Your task to perform on an android device: Search for "usb-b" on ebay, select the first entry, and add it to the cart. Image 0: 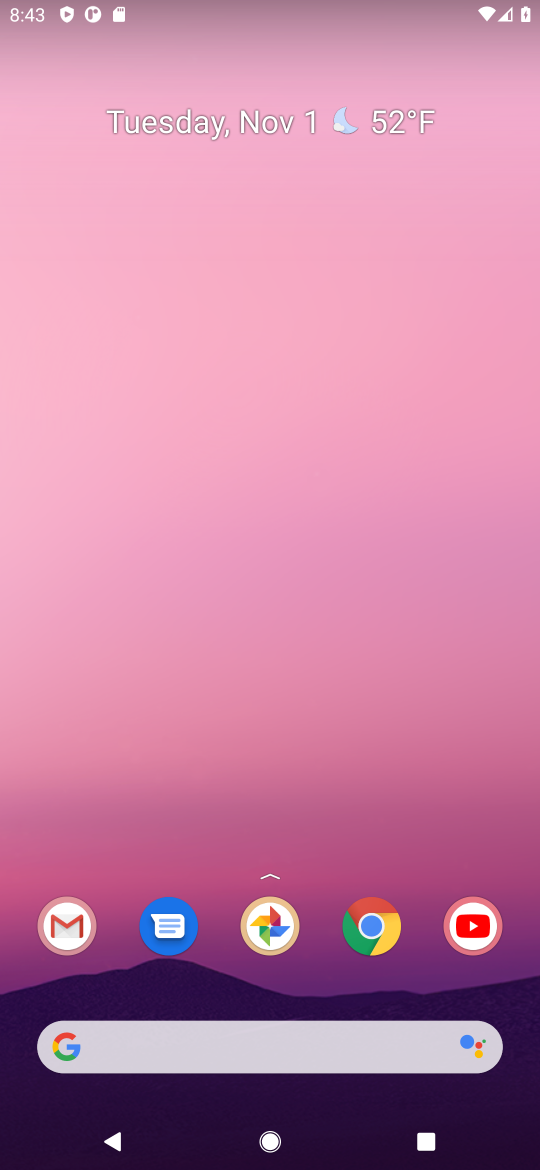
Step 0: click (391, 924)
Your task to perform on an android device: Search for "usb-b" on ebay, select the first entry, and add it to the cart. Image 1: 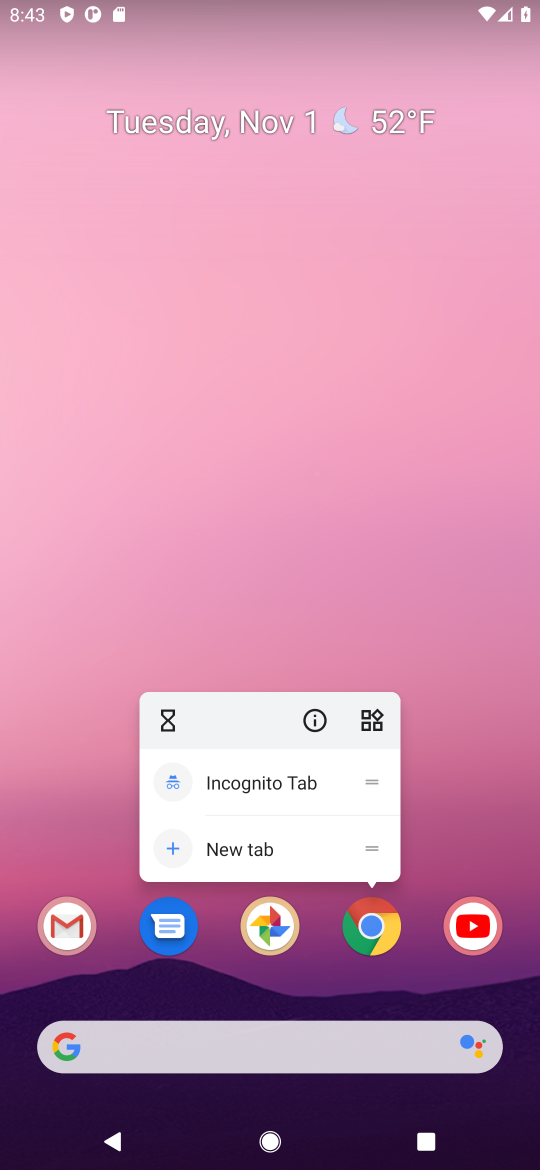
Step 1: click (388, 911)
Your task to perform on an android device: Search for "usb-b" on ebay, select the first entry, and add it to the cart. Image 2: 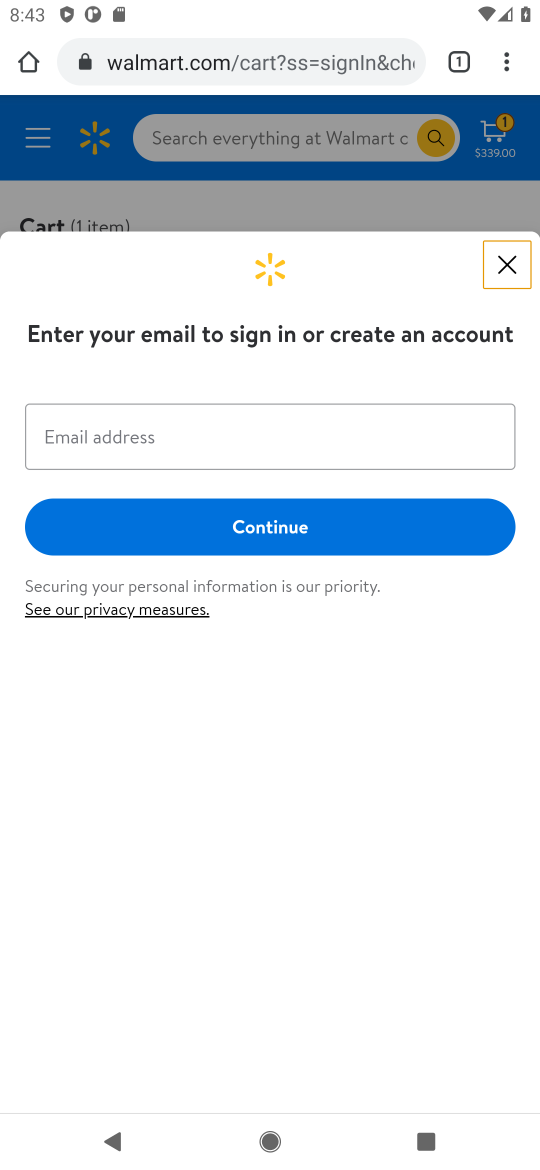
Step 2: click (149, 56)
Your task to perform on an android device: Search for "usb-b" on ebay, select the first entry, and add it to the cart. Image 3: 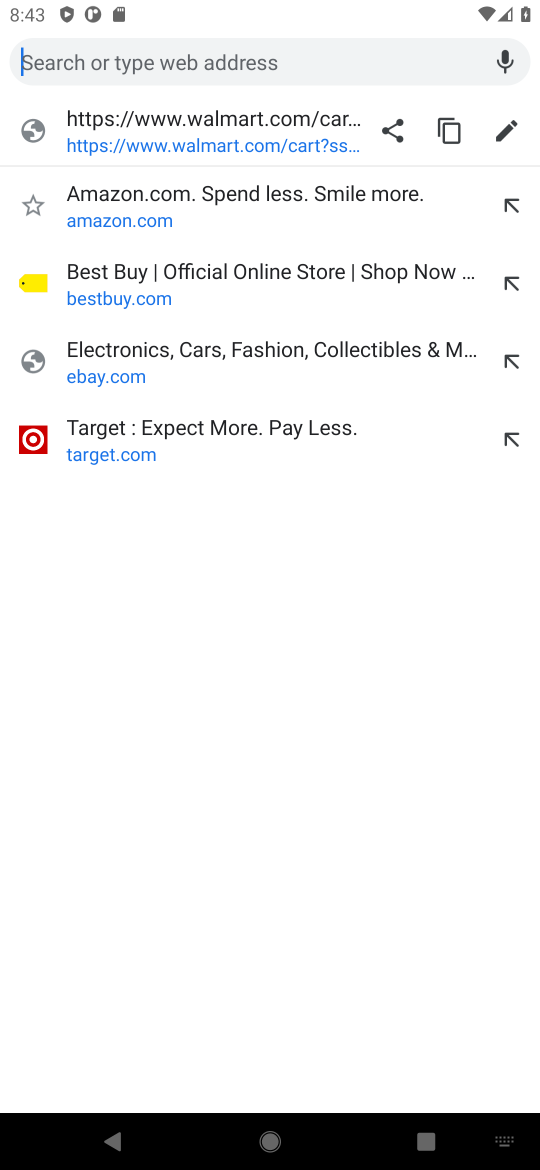
Step 3: type "ebay"
Your task to perform on an android device: Search for "usb-b" on ebay, select the first entry, and add it to the cart. Image 4: 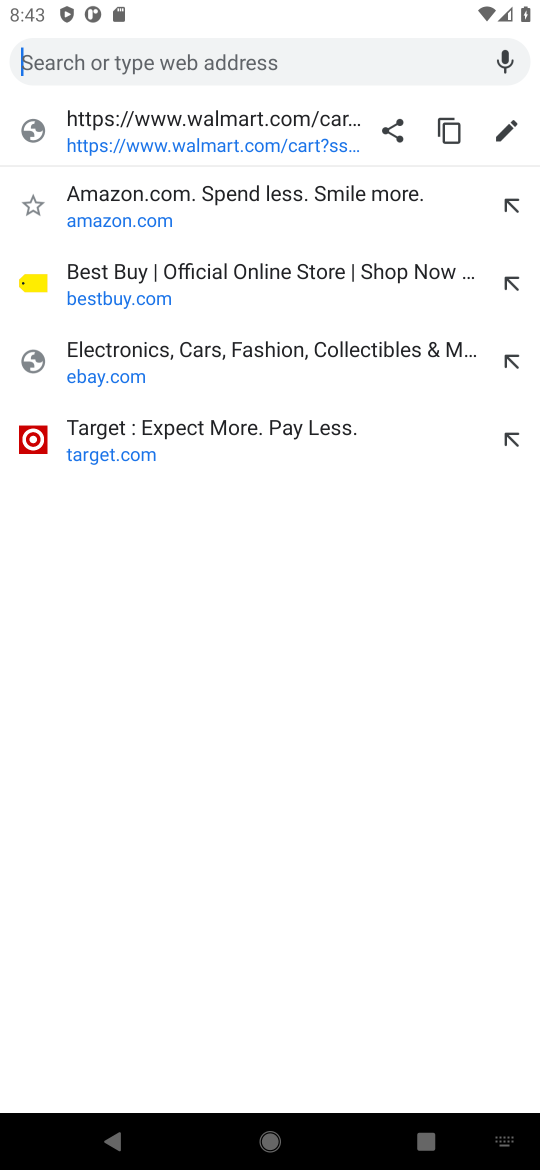
Step 4: click (95, 377)
Your task to perform on an android device: Search for "usb-b" on ebay, select the first entry, and add it to the cart. Image 5: 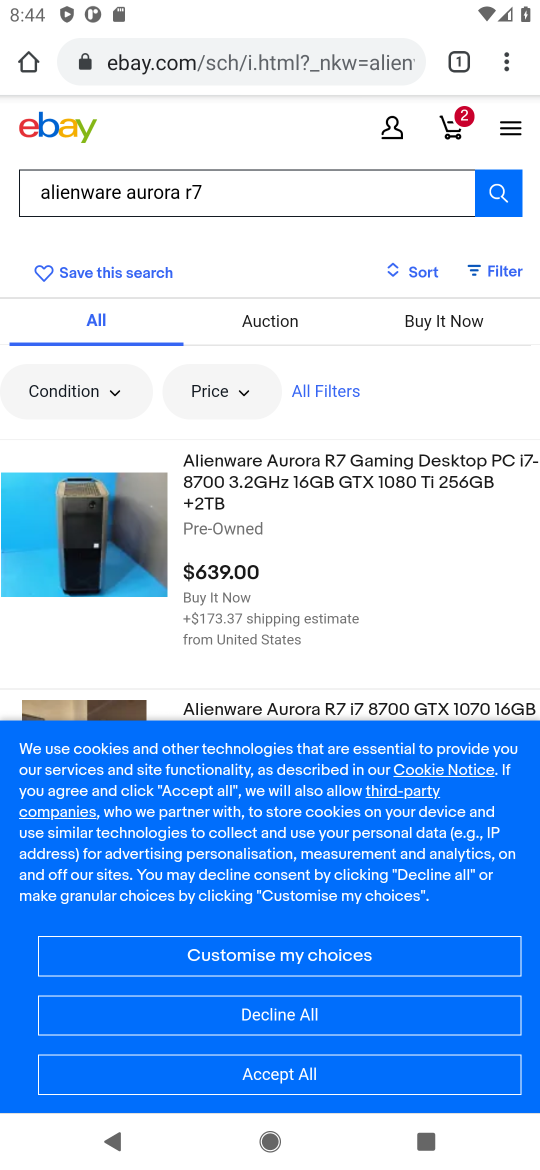
Step 5: click (101, 194)
Your task to perform on an android device: Search for "usb-b" on ebay, select the first entry, and add it to the cart. Image 6: 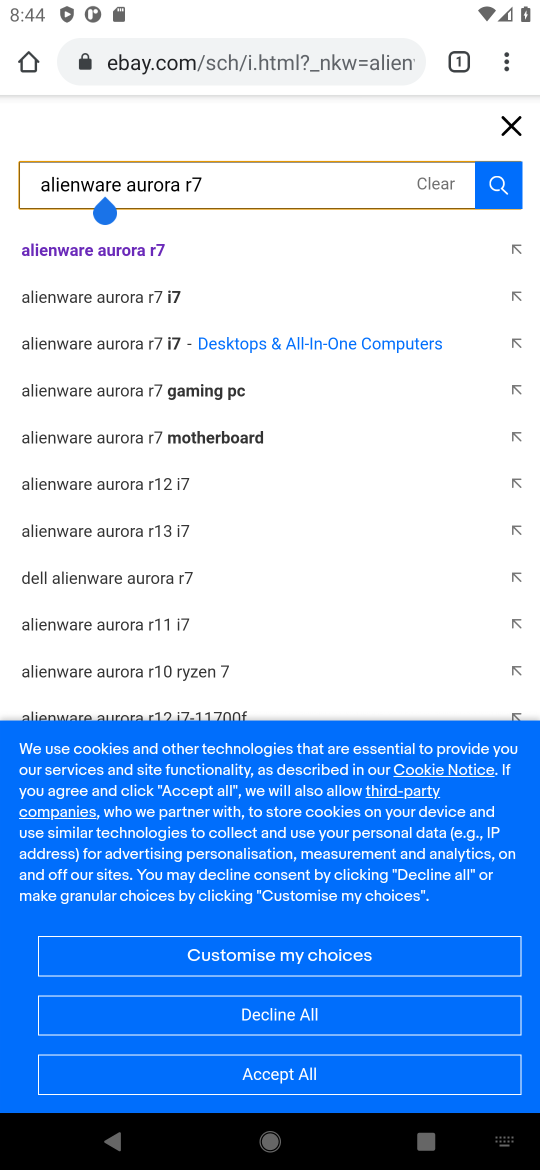
Step 6: click (435, 170)
Your task to perform on an android device: Search for "usb-b" on ebay, select the first entry, and add it to the cart. Image 7: 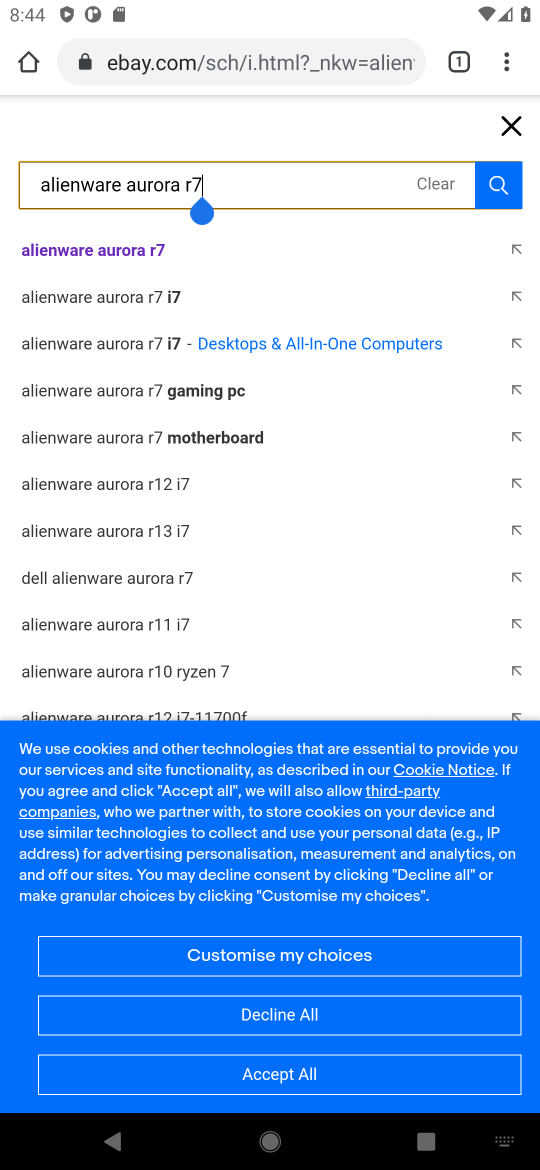
Step 7: click (426, 181)
Your task to perform on an android device: Search for "usb-b" on ebay, select the first entry, and add it to the cart. Image 8: 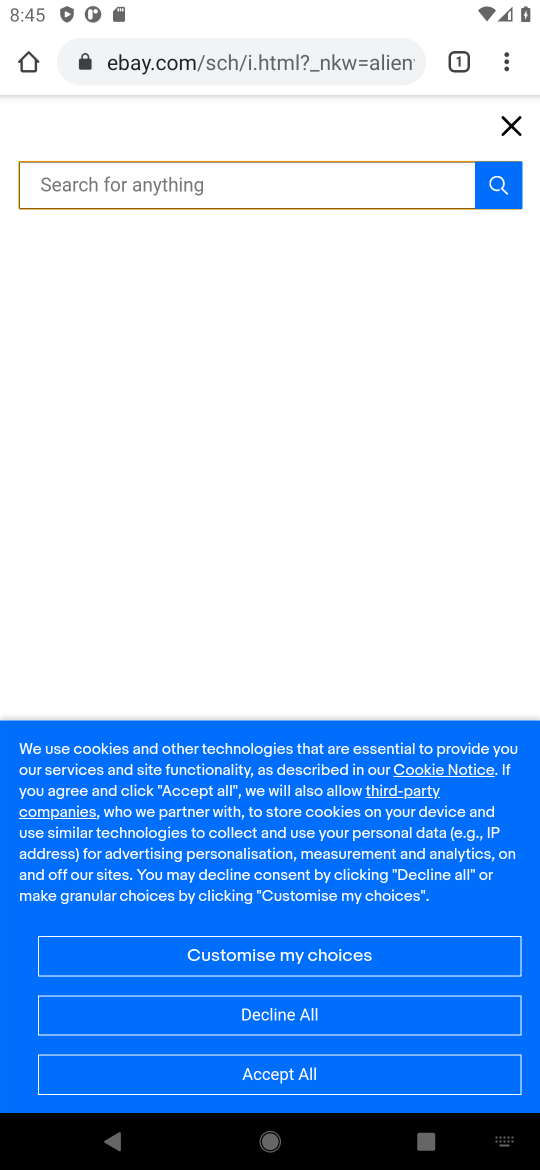
Step 8: type "usb b "
Your task to perform on an android device: Search for "usb-b" on ebay, select the first entry, and add it to the cart. Image 9: 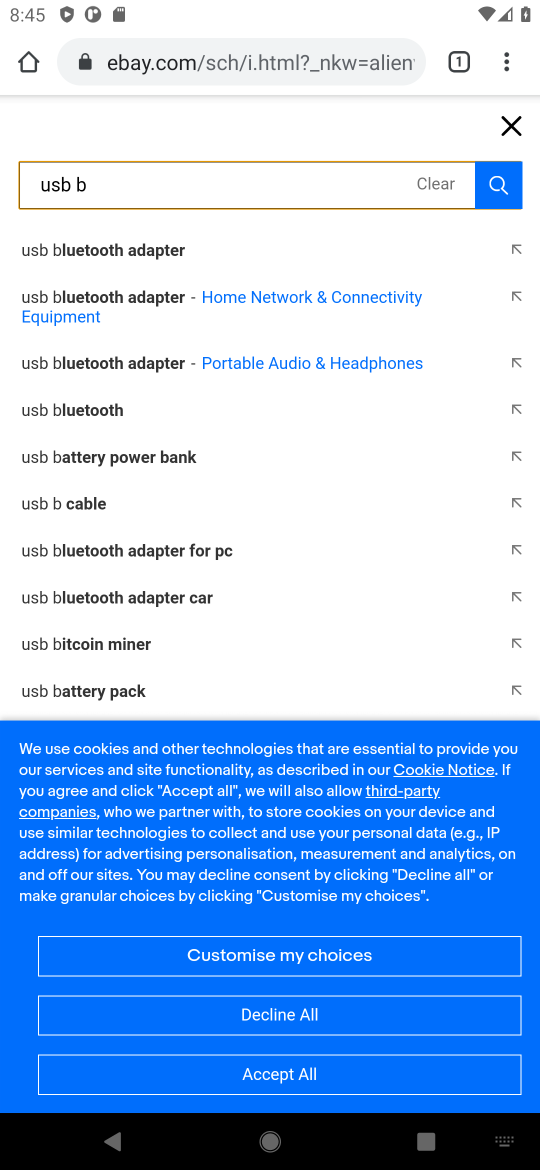
Step 9: click (85, 501)
Your task to perform on an android device: Search for "usb-b" on ebay, select the first entry, and add it to the cart. Image 10: 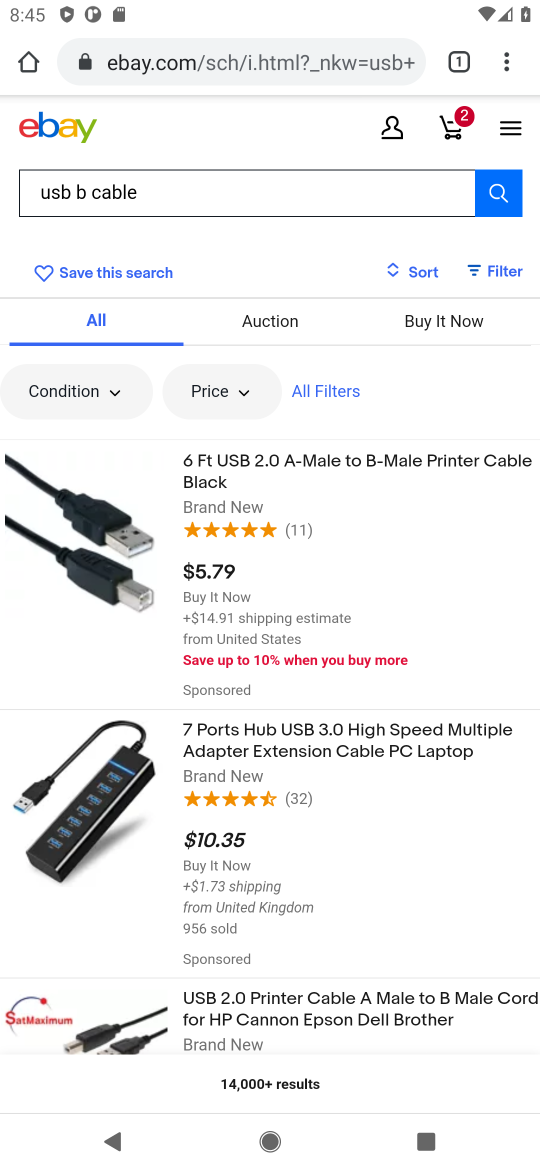
Step 10: drag from (264, 901) to (297, 320)
Your task to perform on an android device: Search for "usb-b" on ebay, select the first entry, and add it to the cart. Image 11: 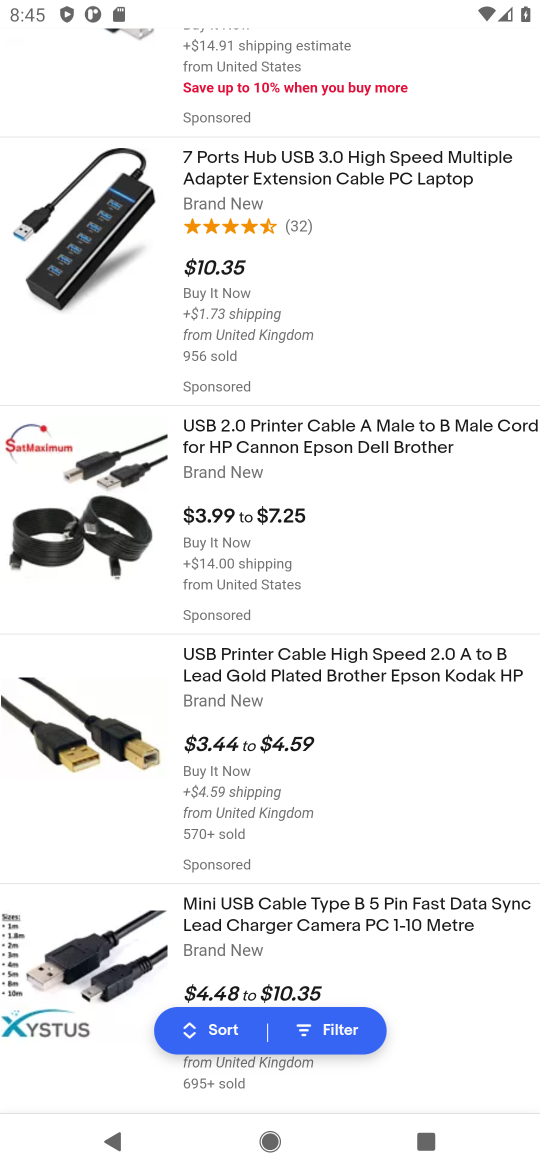
Step 11: click (322, 905)
Your task to perform on an android device: Search for "usb-b" on ebay, select the first entry, and add it to the cart. Image 12: 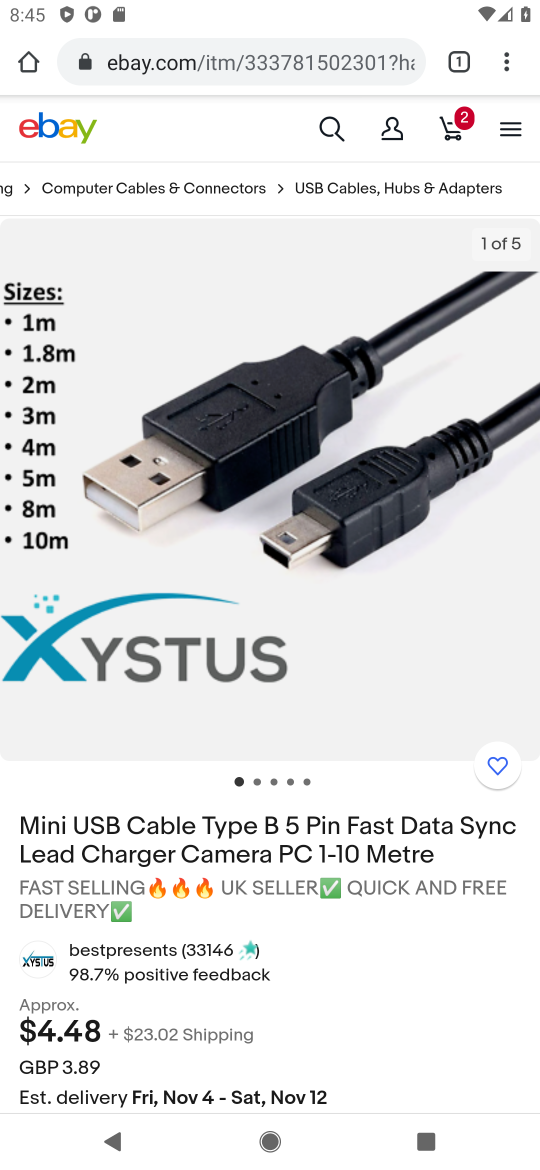
Step 12: drag from (326, 968) to (280, 148)
Your task to perform on an android device: Search for "usb-b" on ebay, select the first entry, and add it to the cart. Image 13: 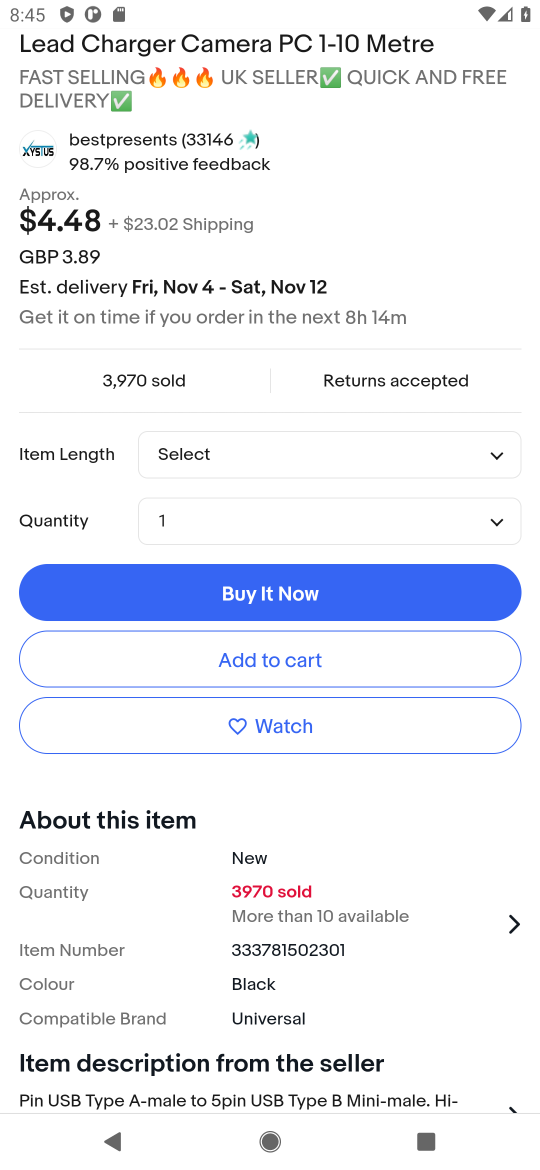
Step 13: click (281, 668)
Your task to perform on an android device: Search for "usb-b" on ebay, select the first entry, and add it to the cart. Image 14: 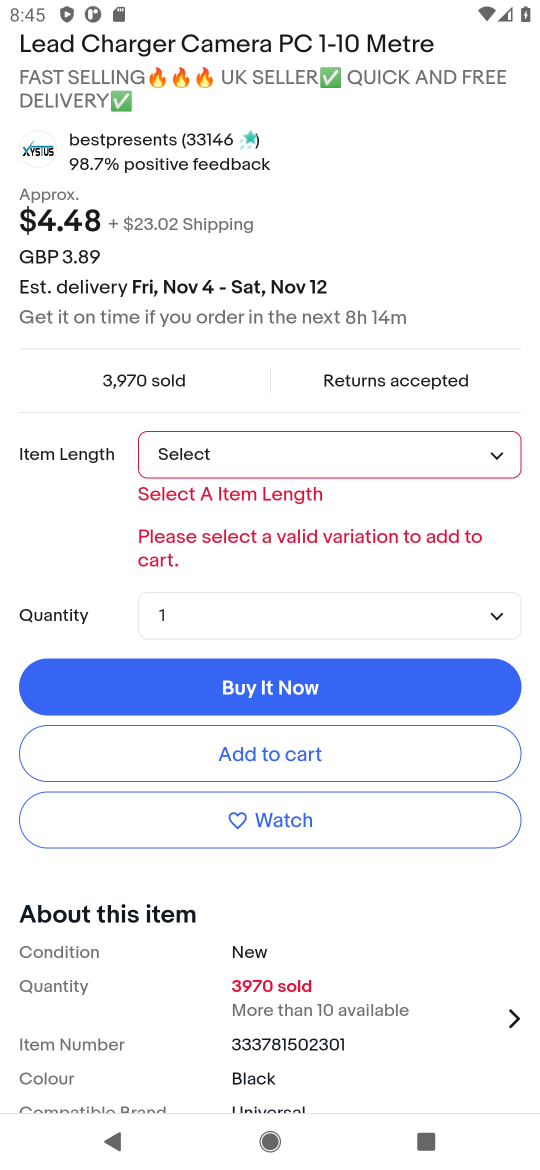
Step 14: click (497, 456)
Your task to perform on an android device: Search for "usb-b" on ebay, select the first entry, and add it to the cart. Image 15: 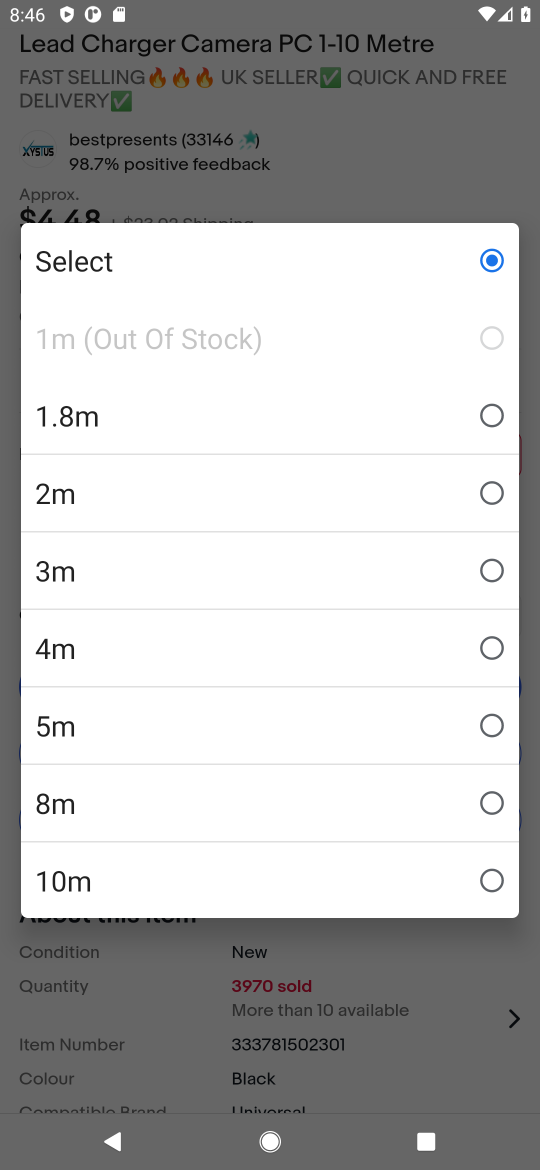
Step 15: click (491, 416)
Your task to perform on an android device: Search for "usb-b" on ebay, select the first entry, and add it to the cart. Image 16: 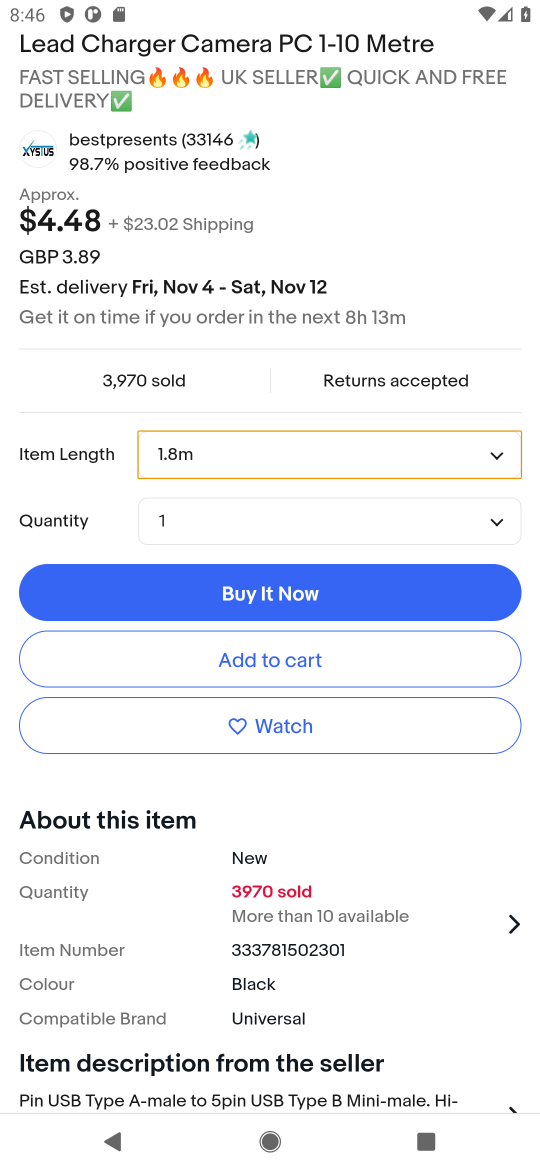
Step 16: click (260, 661)
Your task to perform on an android device: Search for "usb-b" on ebay, select the first entry, and add it to the cart. Image 17: 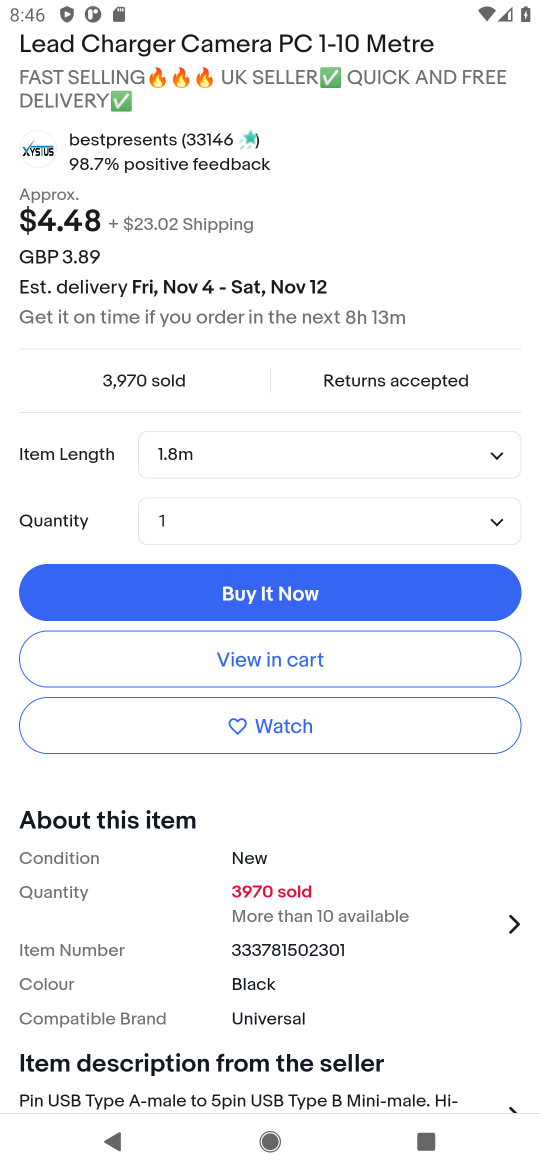
Step 17: click (252, 664)
Your task to perform on an android device: Search for "usb-b" on ebay, select the first entry, and add it to the cart. Image 18: 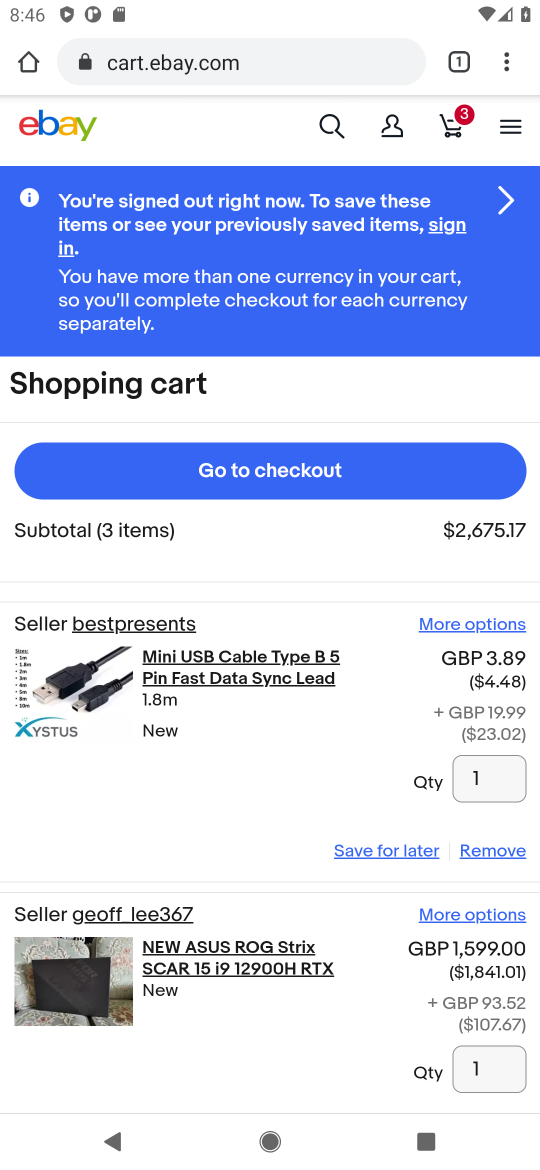
Step 18: task complete